Your task to perform on an android device: Open calendar and show me the first week of next month Image 0: 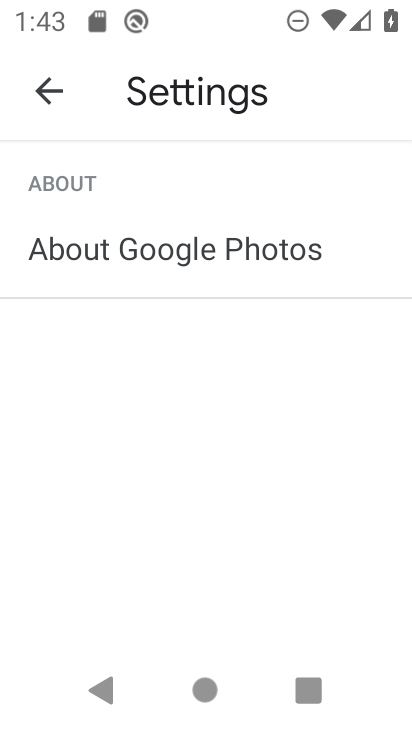
Step 0: press back button
Your task to perform on an android device: Open calendar and show me the first week of next month Image 1: 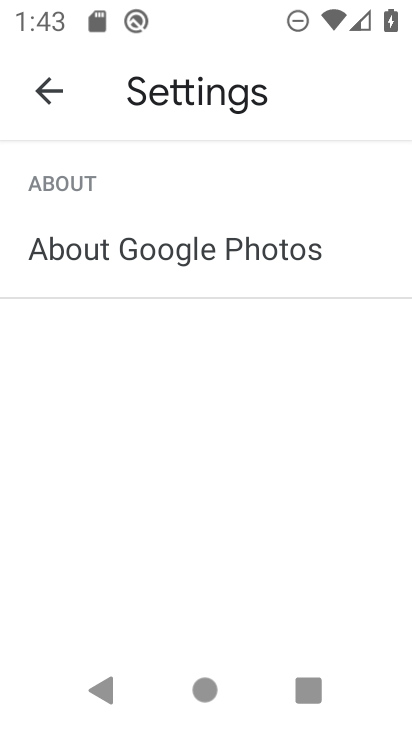
Step 1: press home button
Your task to perform on an android device: Open calendar and show me the first week of next month Image 2: 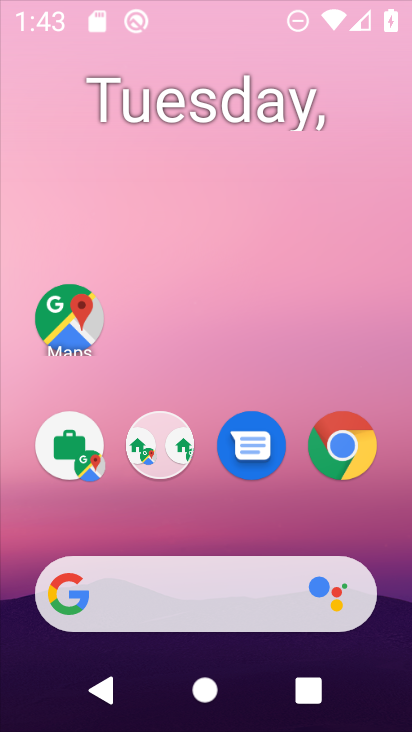
Step 2: press home button
Your task to perform on an android device: Open calendar and show me the first week of next month Image 3: 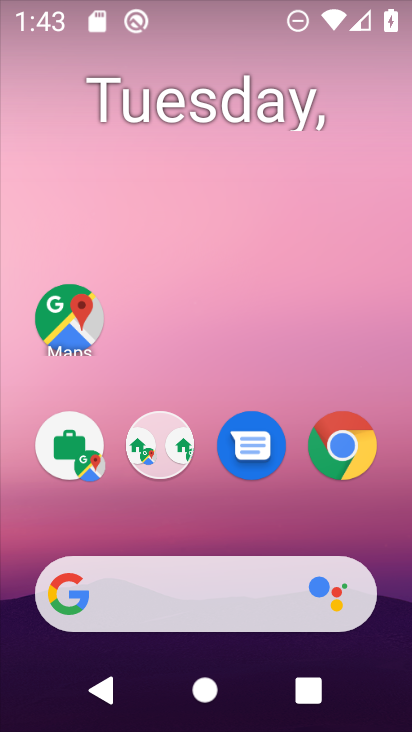
Step 3: drag from (225, 533) to (235, 155)
Your task to perform on an android device: Open calendar and show me the first week of next month Image 4: 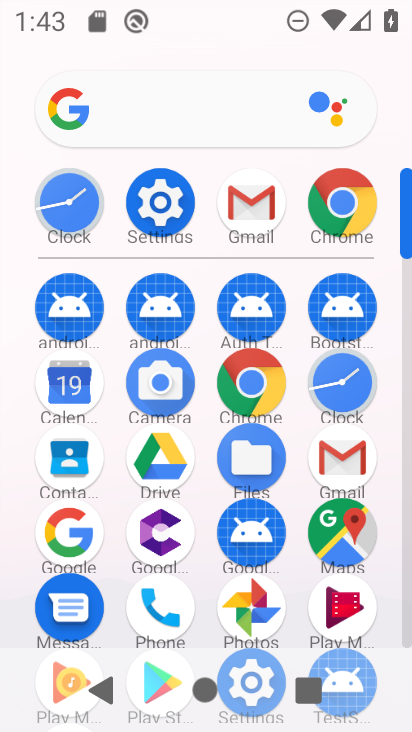
Step 4: click (83, 396)
Your task to perform on an android device: Open calendar and show me the first week of next month Image 5: 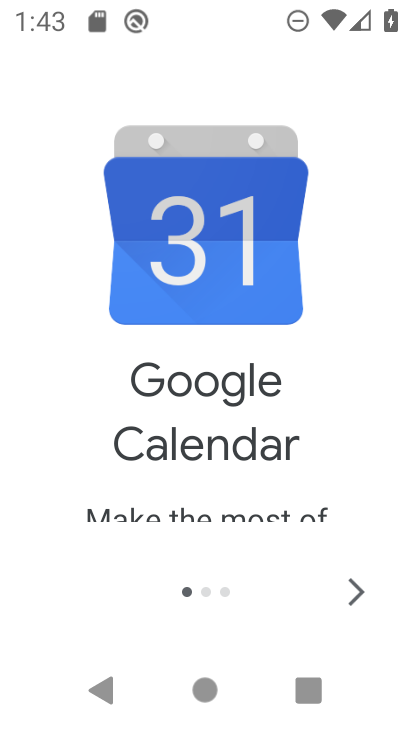
Step 5: click (355, 592)
Your task to perform on an android device: Open calendar and show me the first week of next month Image 6: 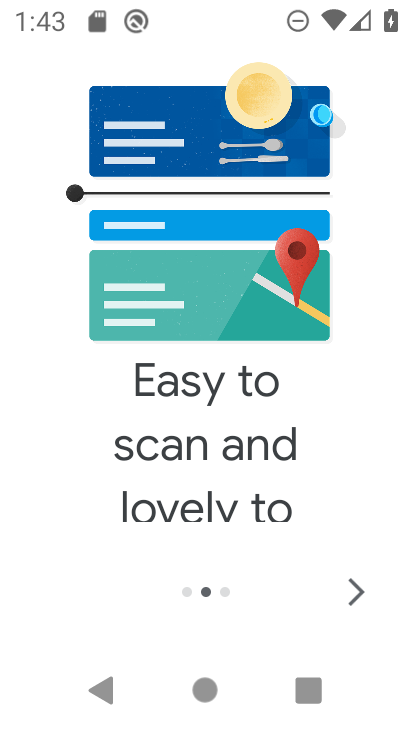
Step 6: click (355, 592)
Your task to perform on an android device: Open calendar and show me the first week of next month Image 7: 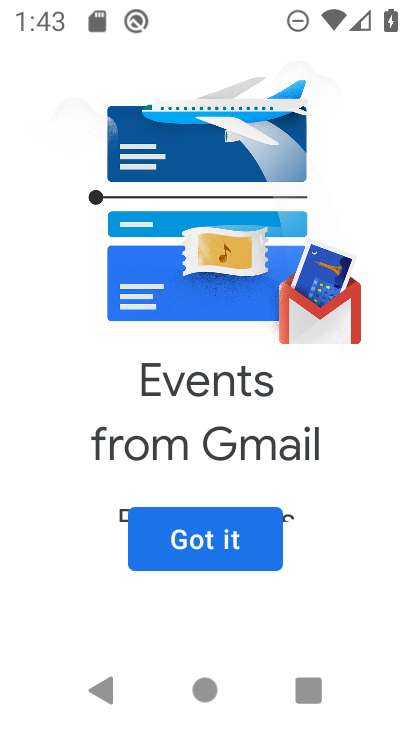
Step 7: click (250, 545)
Your task to perform on an android device: Open calendar and show me the first week of next month Image 8: 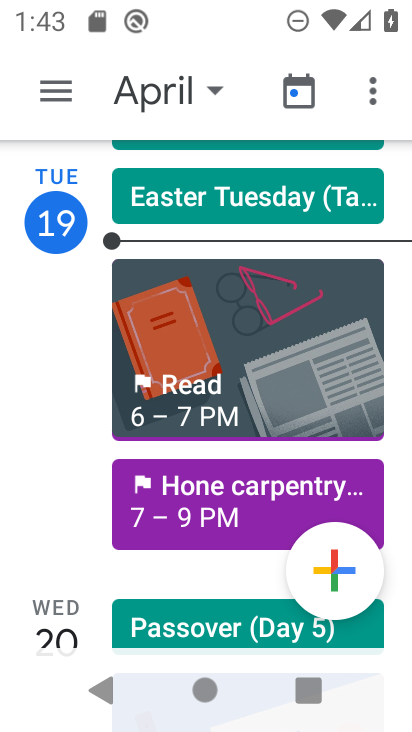
Step 8: click (56, 101)
Your task to perform on an android device: Open calendar and show me the first week of next month Image 9: 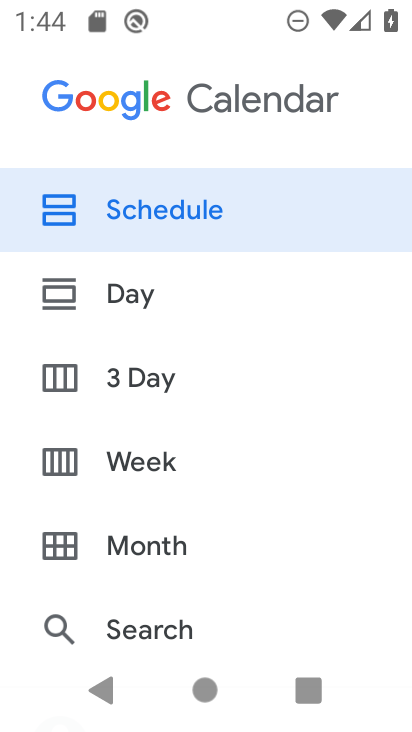
Step 9: click (155, 469)
Your task to perform on an android device: Open calendar and show me the first week of next month Image 10: 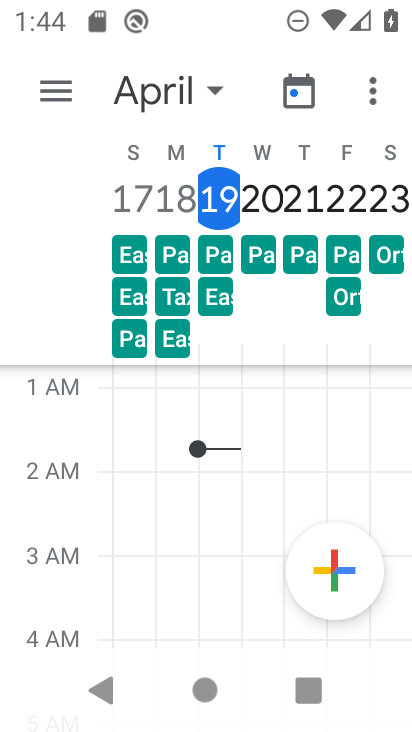
Step 10: click (192, 105)
Your task to perform on an android device: Open calendar and show me the first week of next month Image 11: 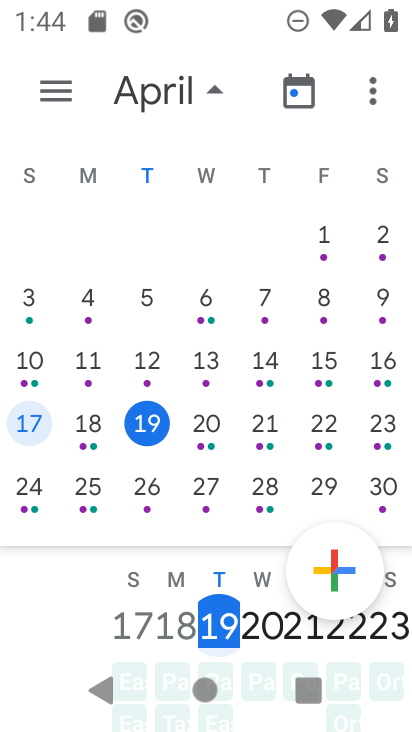
Step 11: drag from (312, 424) to (10, 394)
Your task to perform on an android device: Open calendar and show me the first week of next month Image 12: 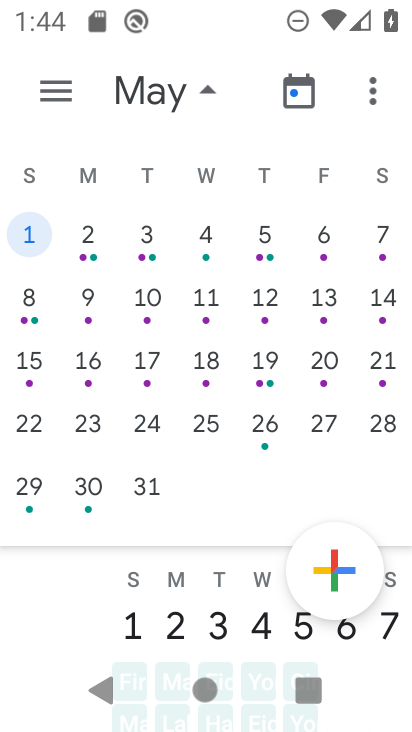
Step 12: drag from (308, 342) to (0, 381)
Your task to perform on an android device: Open calendar and show me the first week of next month Image 13: 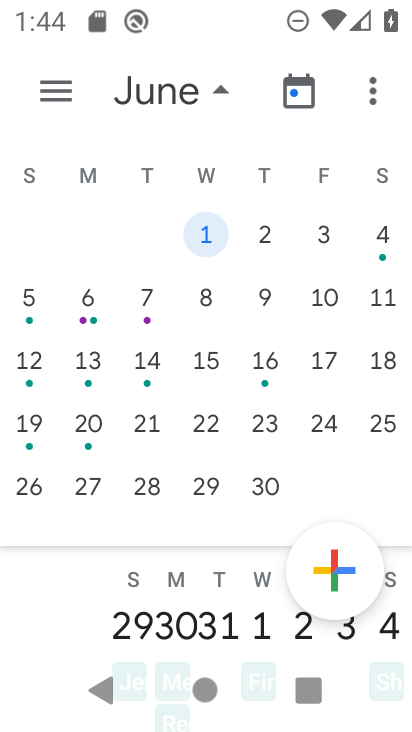
Step 13: drag from (69, 268) to (315, 265)
Your task to perform on an android device: Open calendar and show me the first week of next month Image 14: 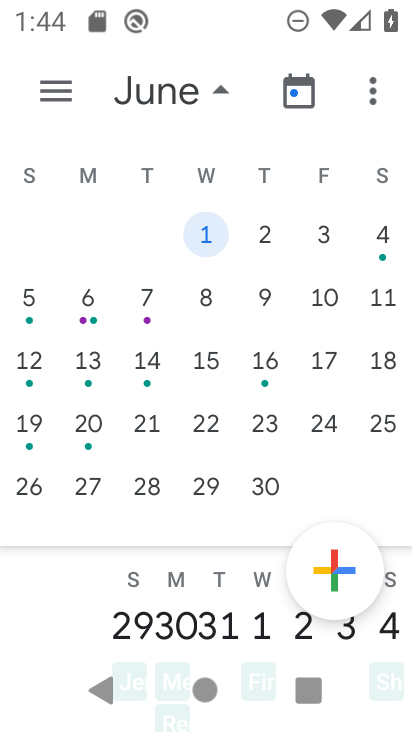
Step 14: drag from (76, 269) to (389, 273)
Your task to perform on an android device: Open calendar and show me the first week of next month Image 15: 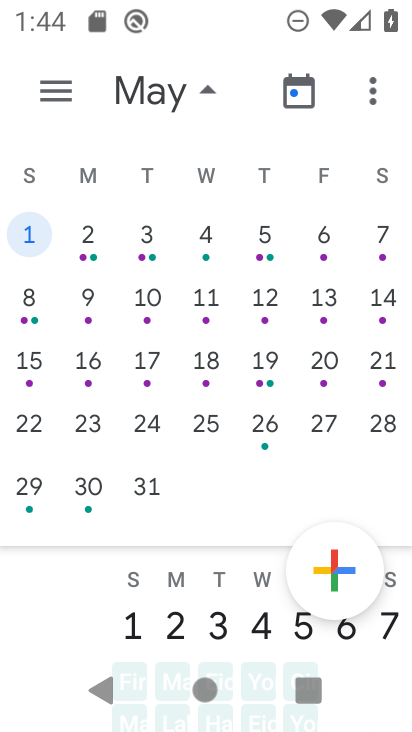
Step 15: click (37, 245)
Your task to perform on an android device: Open calendar and show me the first week of next month Image 16: 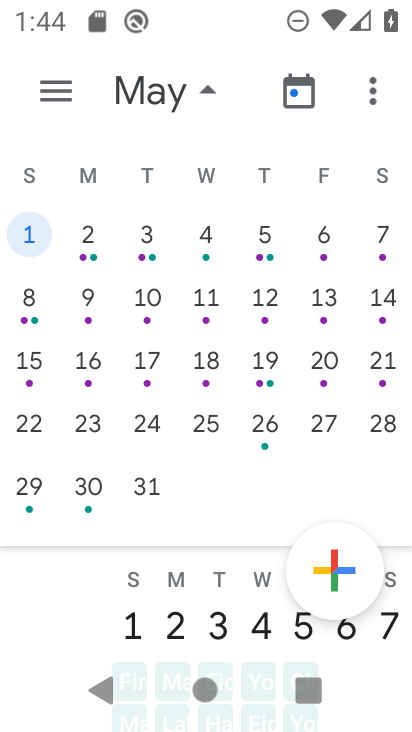
Step 16: task complete